Your task to perform on an android device: install app "Mercado Libre" Image 0: 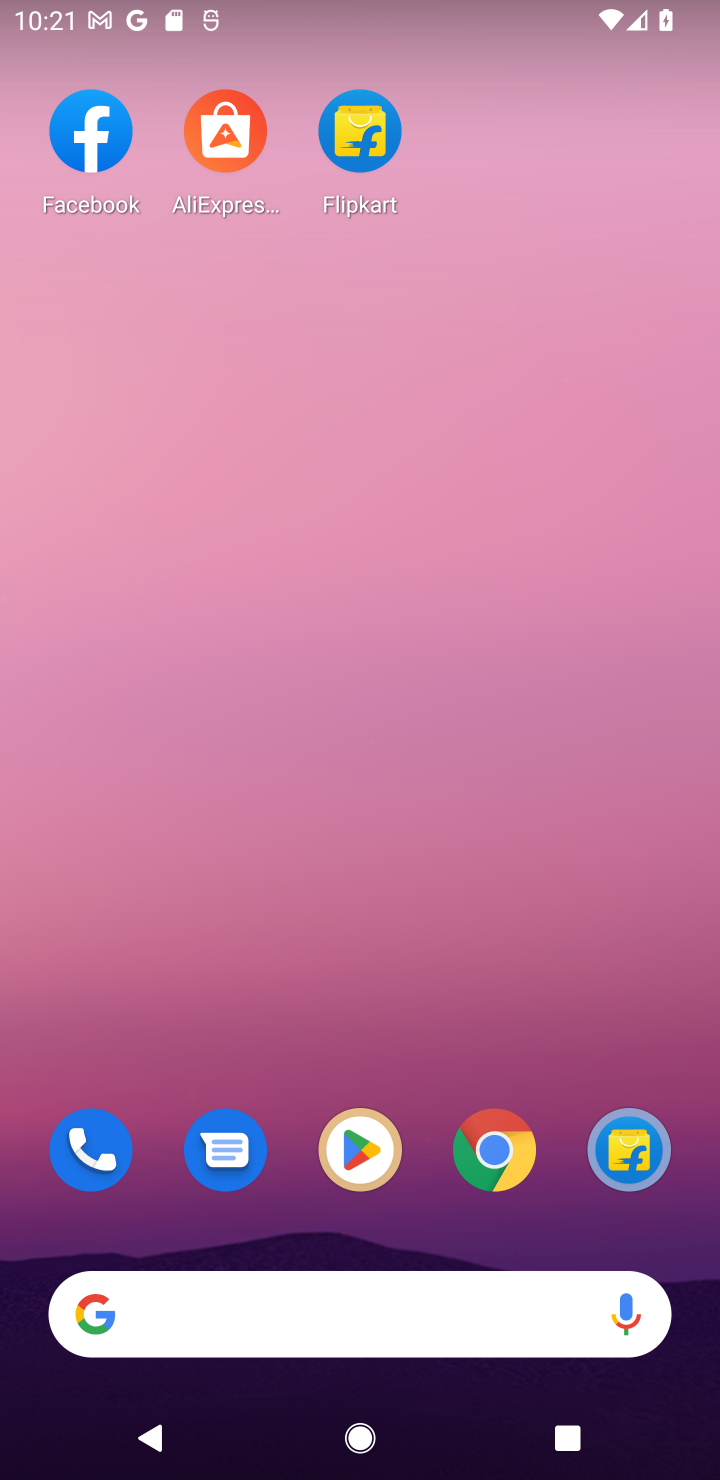
Step 0: click (348, 1174)
Your task to perform on an android device: install app "Mercado Libre" Image 1: 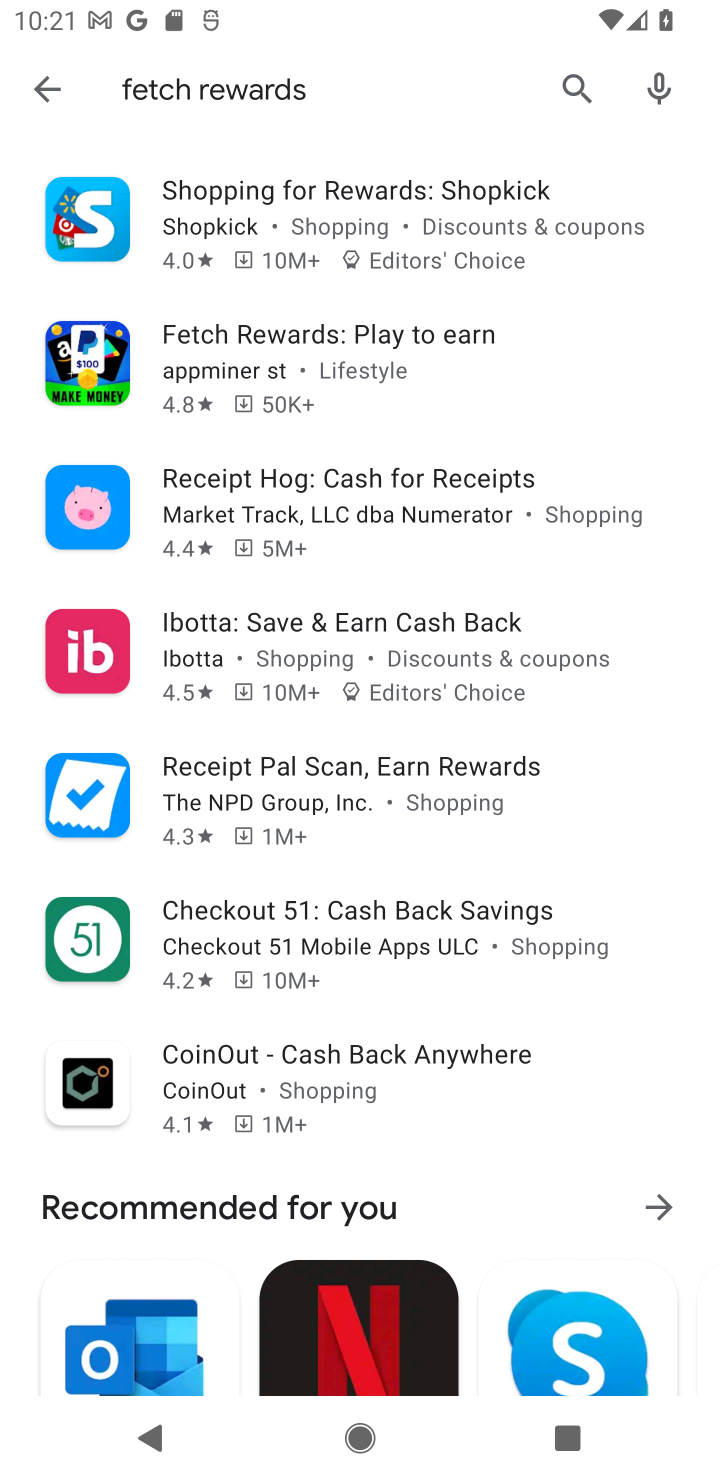
Step 1: click (580, 78)
Your task to perform on an android device: install app "Mercado Libre" Image 2: 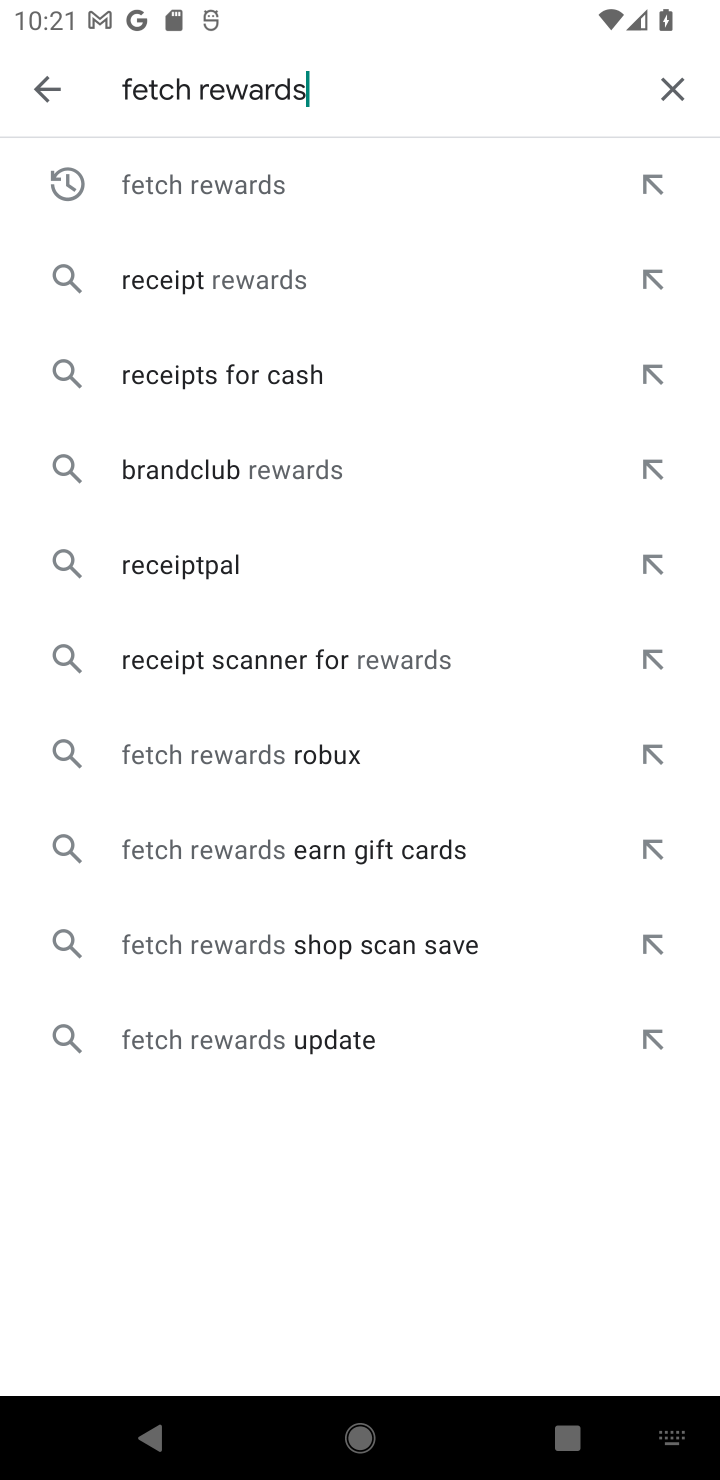
Step 2: click (676, 105)
Your task to perform on an android device: install app "Mercado Libre" Image 3: 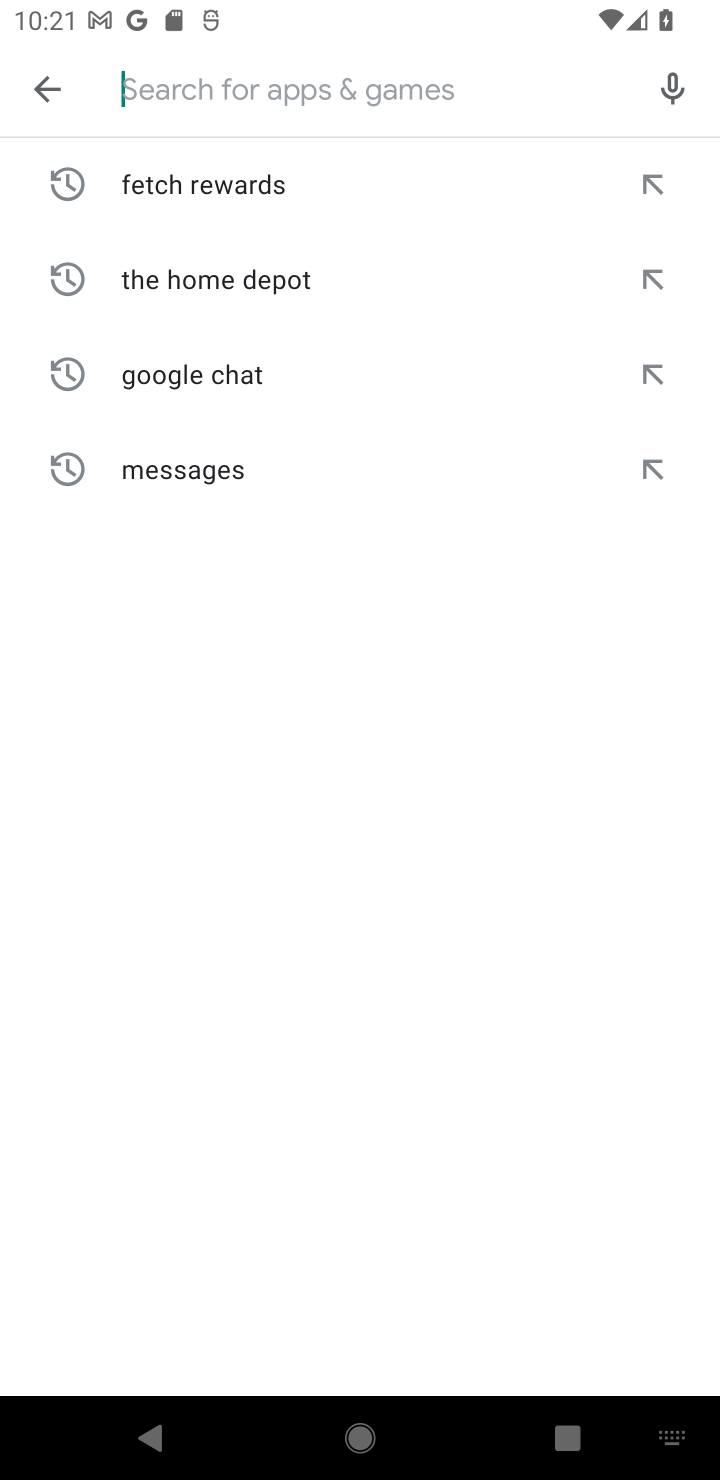
Step 3: type "Mercado Libre"
Your task to perform on an android device: install app "Mercado Libre" Image 4: 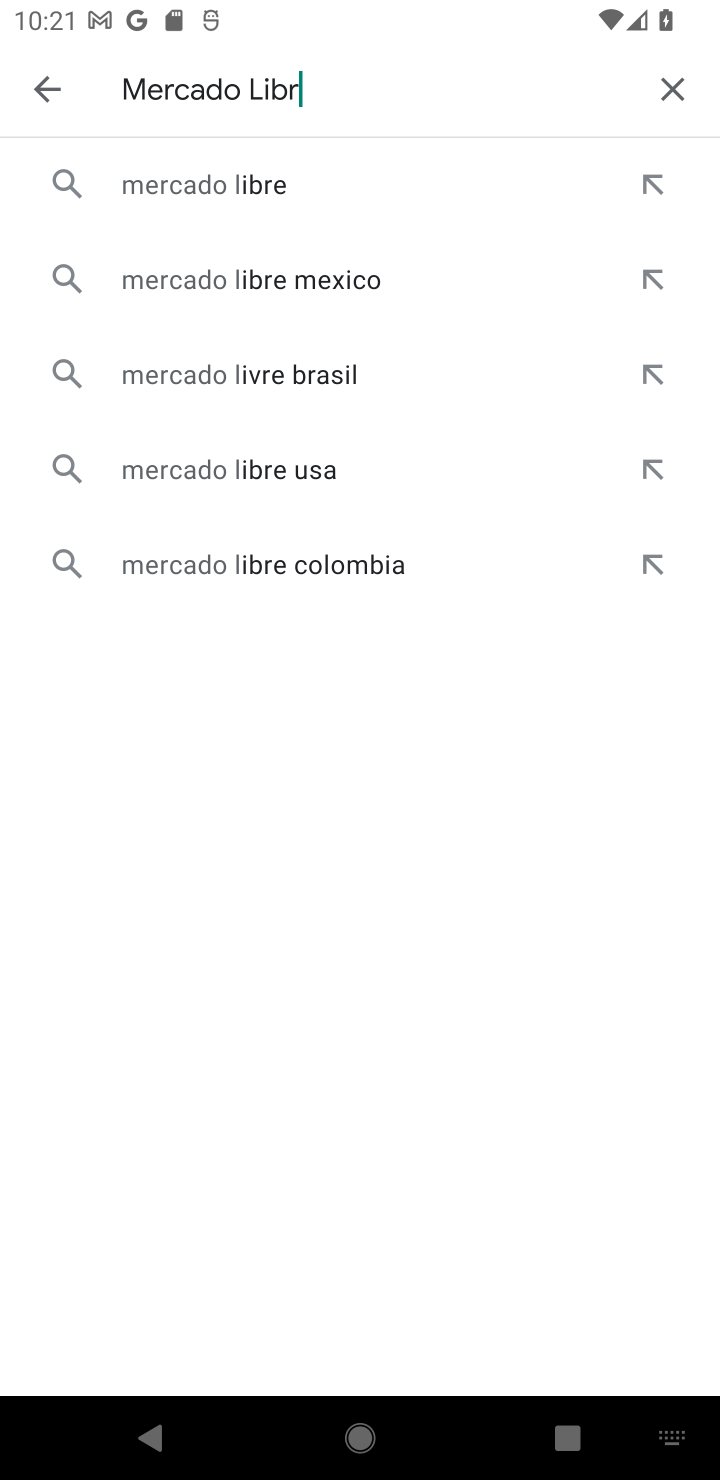
Step 4: type ""
Your task to perform on an android device: install app "Mercado Libre" Image 5: 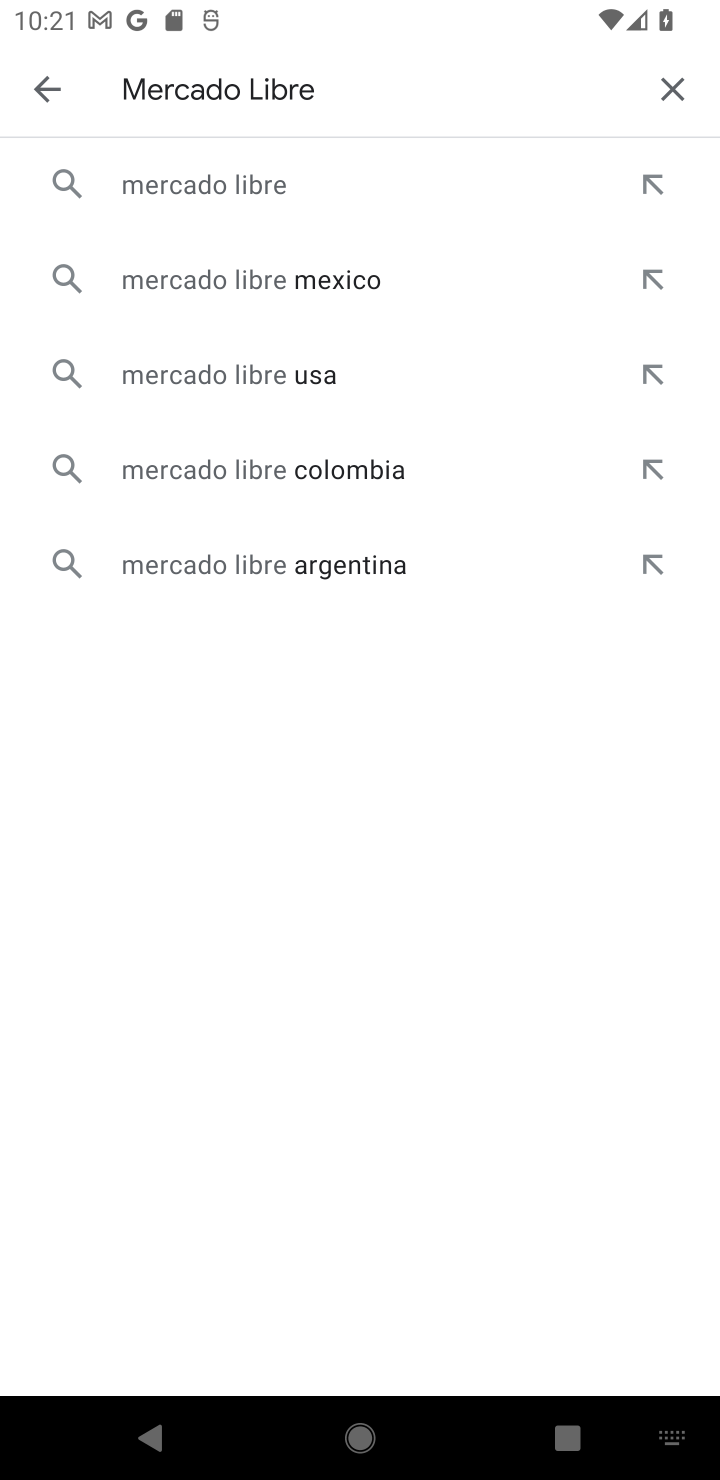
Step 5: click (205, 175)
Your task to perform on an android device: install app "Mercado Libre" Image 6: 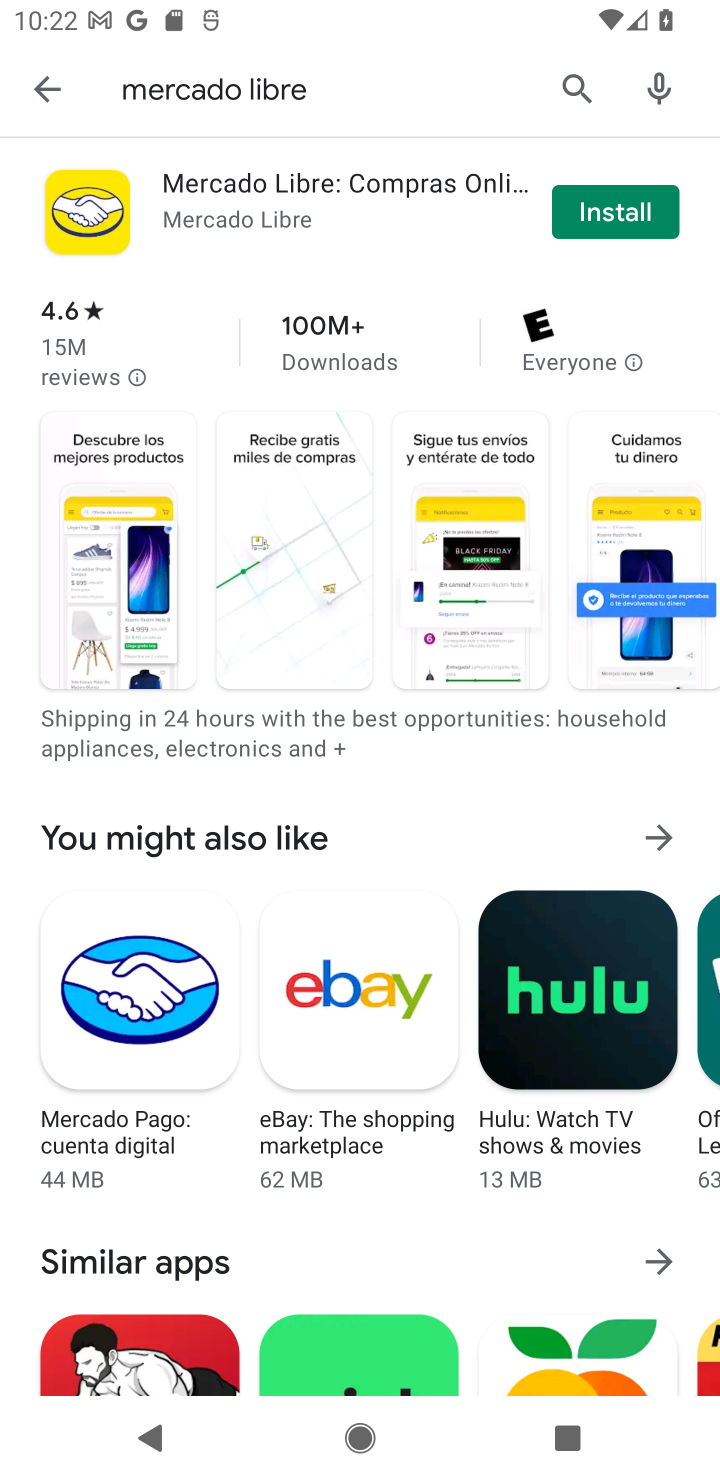
Step 6: click (607, 197)
Your task to perform on an android device: install app "Mercado Libre" Image 7: 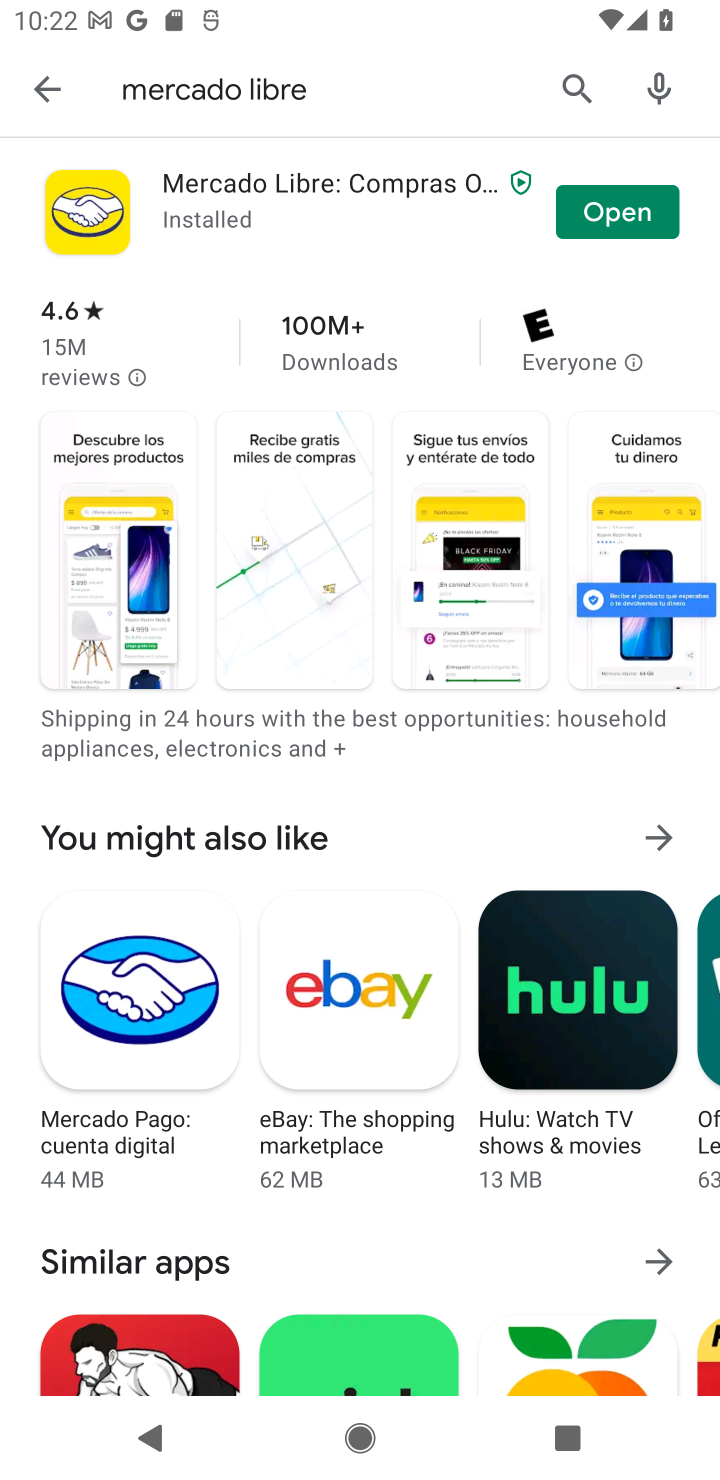
Step 7: task complete